Your task to perform on an android device: Open Android settings Image 0: 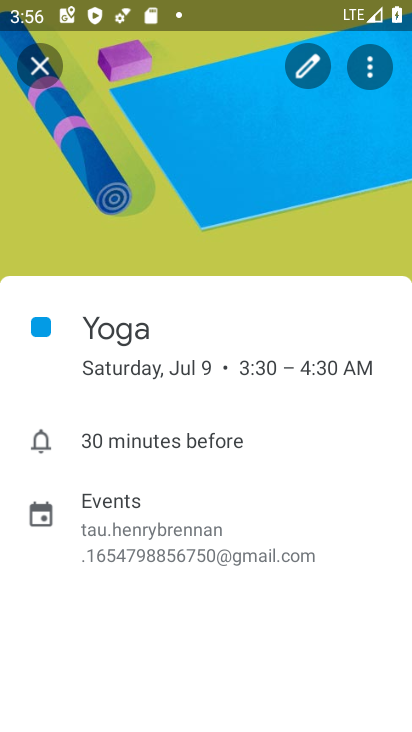
Step 0: press home button
Your task to perform on an android device: Open Android settings Image 1: 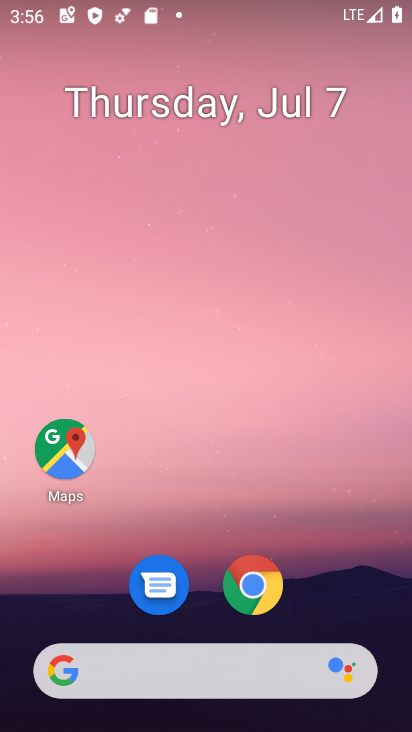
Step 1: drag from (187, 523) to (229, 0)
Your task to perform on an android device: Open Android settings Image 2: 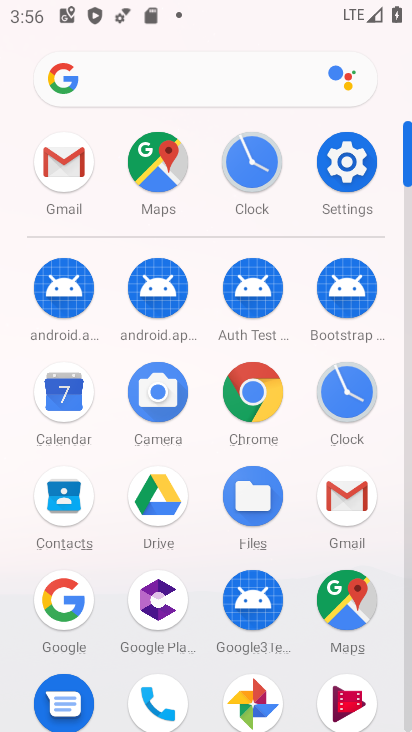
Step 2: click (356, 167)
Your task to perform on an android device: Open Android settings Image 3: 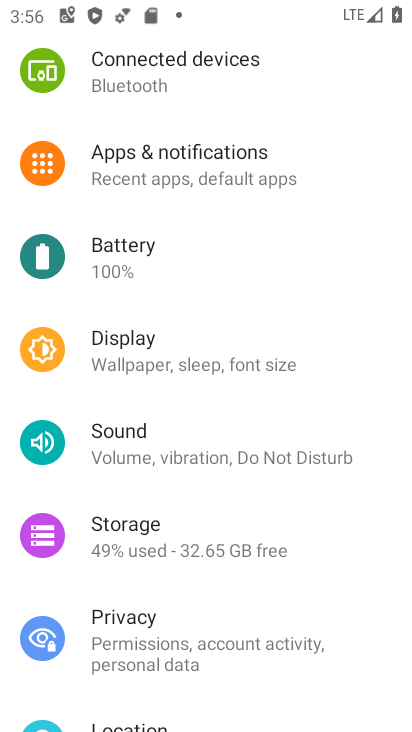
Step 3: drag from (225, 476) to (253, 13)
Your task to perform on an android device: Open Android settings Image 4: 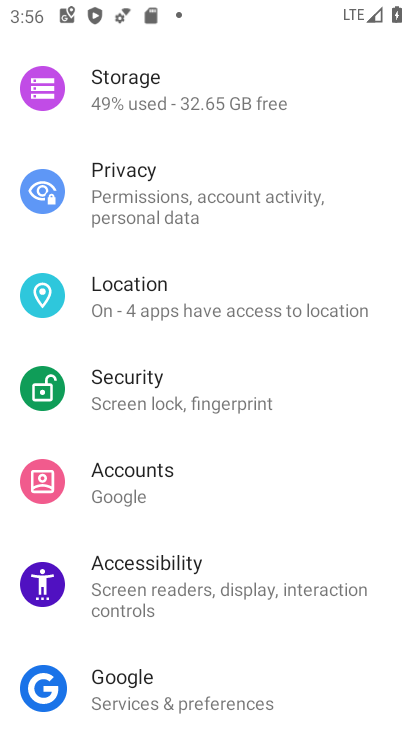
Step 4: drag from (218, 621) to (299, 77)
Your task to perform on an android device: Open Android settings Image 5: 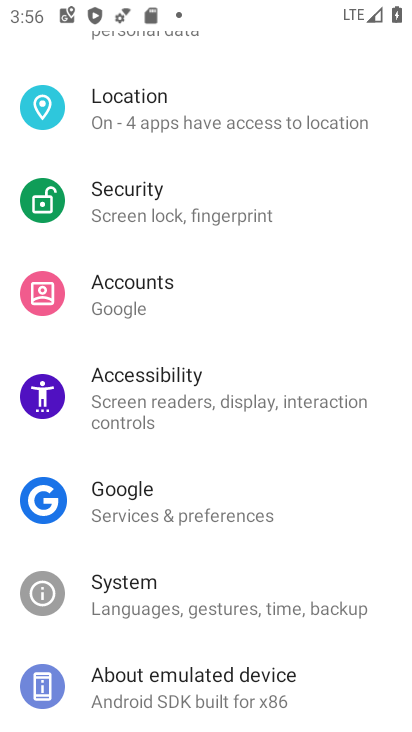
Step 5: click (211, 689)
Your task to perform on an android device: Open Android settings Image 6: 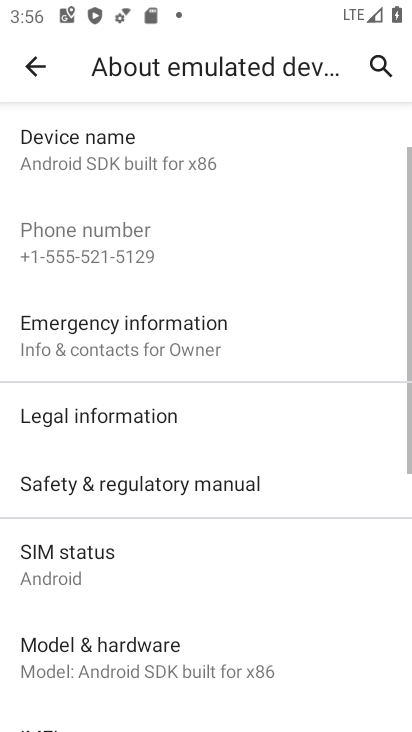
Step 6: task complete